Your task to perform on an android device: Go to settings Image 0: 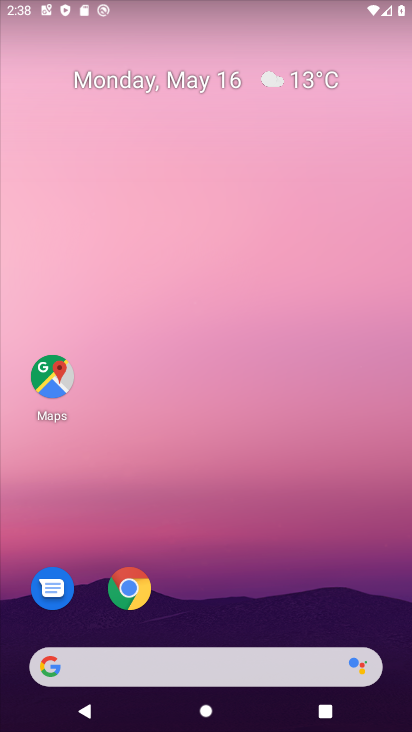
Step 0: click (368, 6)
Your task to perform on an android device: Go to settings Image 1: 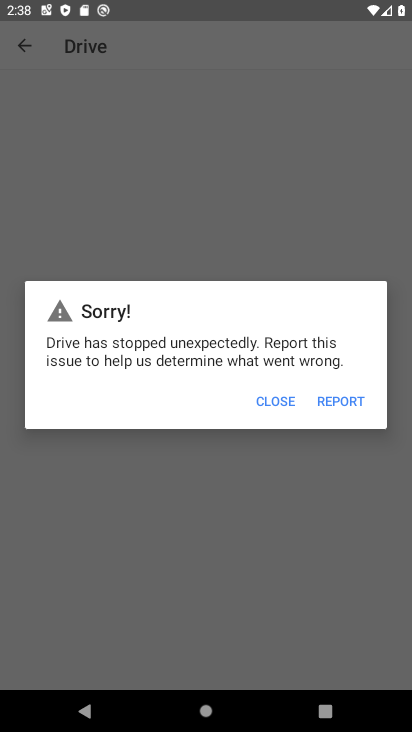
Step 1: click (285, 386)
Your task to perform on an android device: Go to settings Image 2: 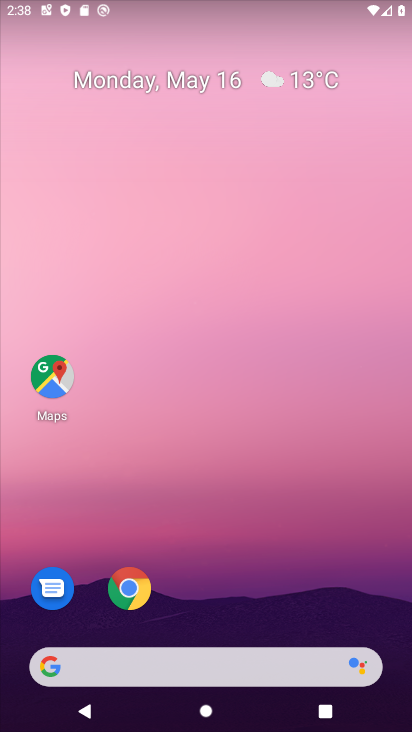
Step 2: drag from (271, 621) to (252, 36)
Your task to perform on an android device: Go to settings Image 3: 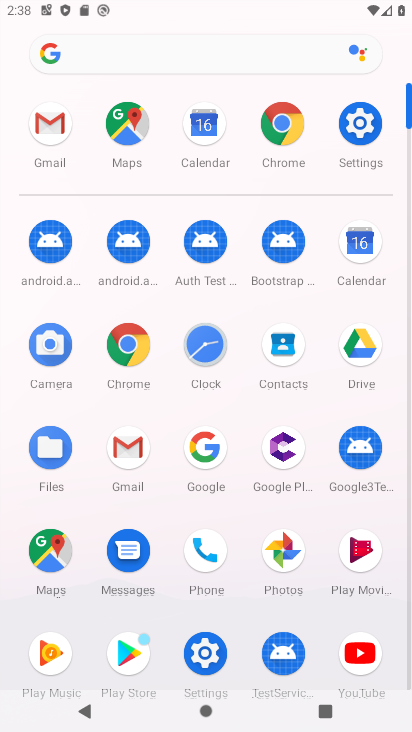
Step 3: click (362, 124)
Your task to perform on an android device: Go to settings Image 4: 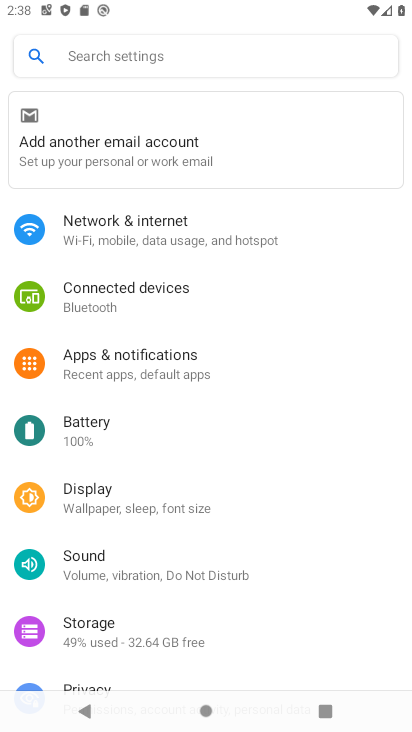
Step 4: task complete